Your task to perform on an android device: What's the weather going to be tomorrow? Image 0: 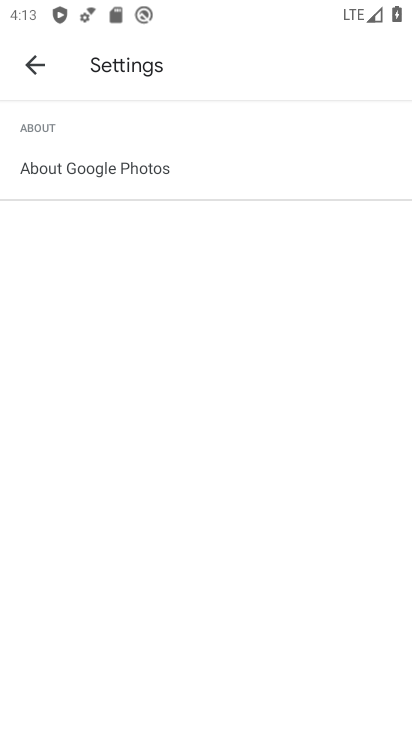
Step 0: press home button
Your task to perform on an android device: What's the weather going to be tomorrow? Image 1: 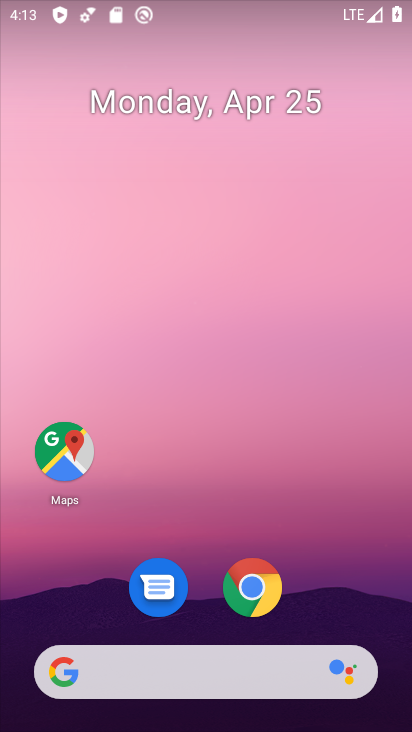
Step 1: click (104, 673)
Your task to perform on an android device: What's the weather going to be tomorrow? Image 2: 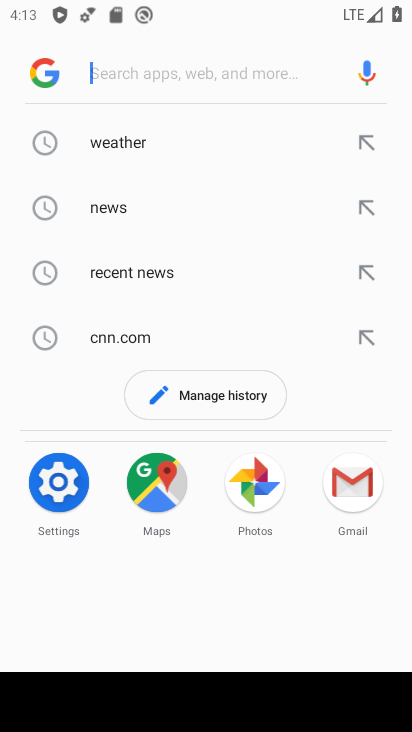
Step 2: click (114, 148)
Your task to perform on an android device: What's the weather going to be tomorrow? Image 3: 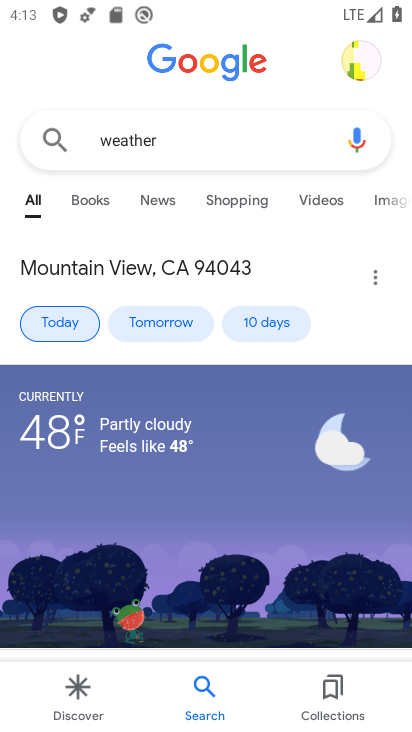
Step 3: click (176, 335)
Your task to perform on an android device: What's the weather going to be tomorrow? Image 4: 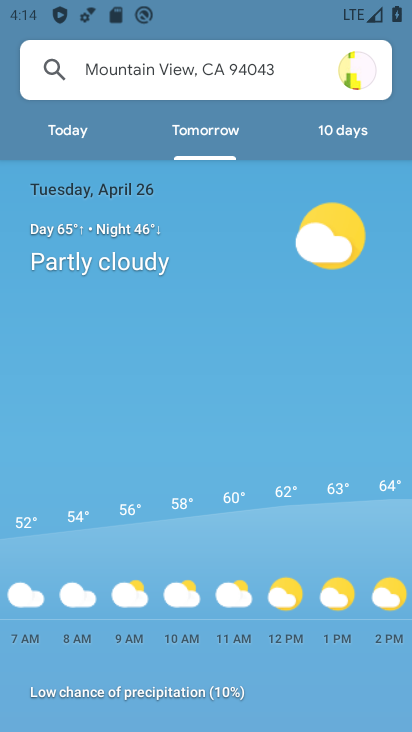
Step 4: task complete